Your task to perform on an android device: change notifications settings Image 0: 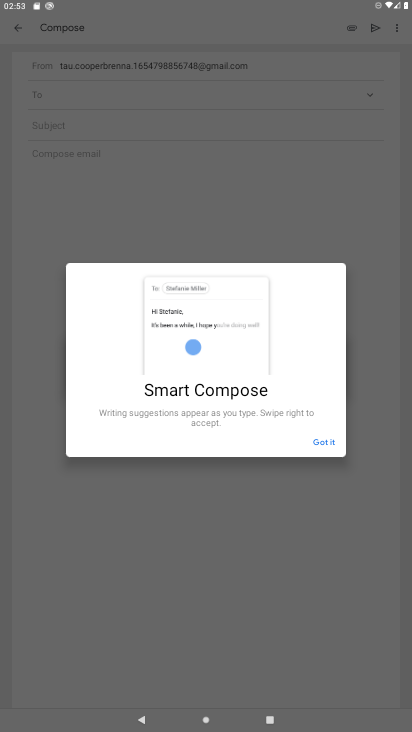
Step 0: press home button
Your task to perform on an android device: change notifications settings Image 1: 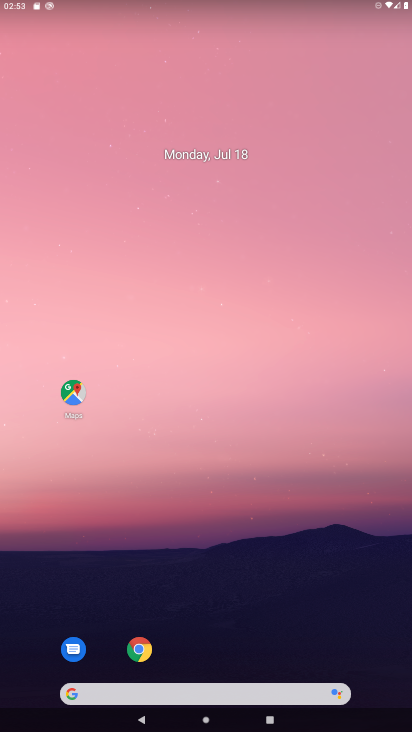
Step 1: drag from (175, 662) to (193, 55)
Your task to perform on an android device: change notifications settings Image 2: 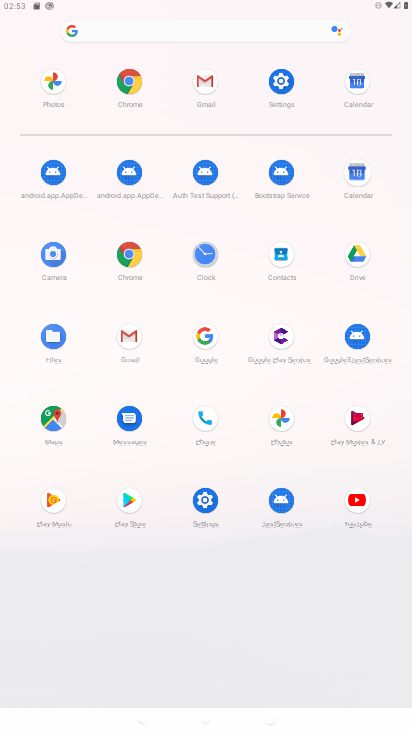
Step 2: click (280, 86)
Your task to perform on an android device: change notifications settings Image 3: 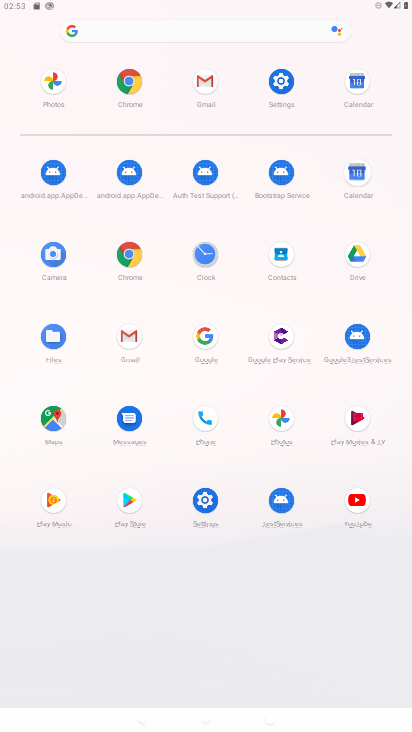
Step 3: click (280, 86)
Your task to perform on an android device: change notifications settings Image 4: 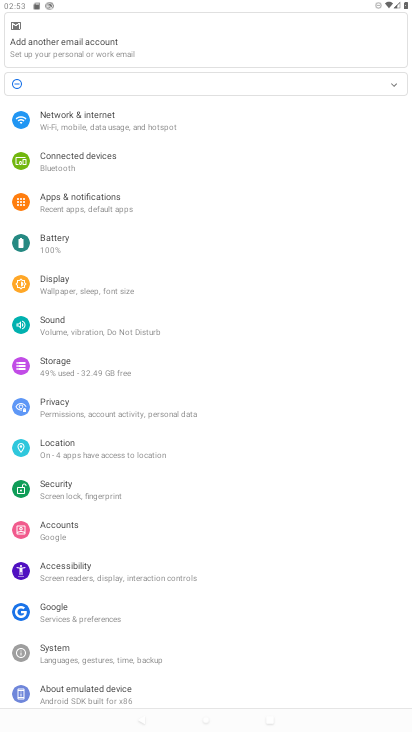
Step 4: click (106, 209)
Your task to perform on an android device: change notifications settings Image 5: 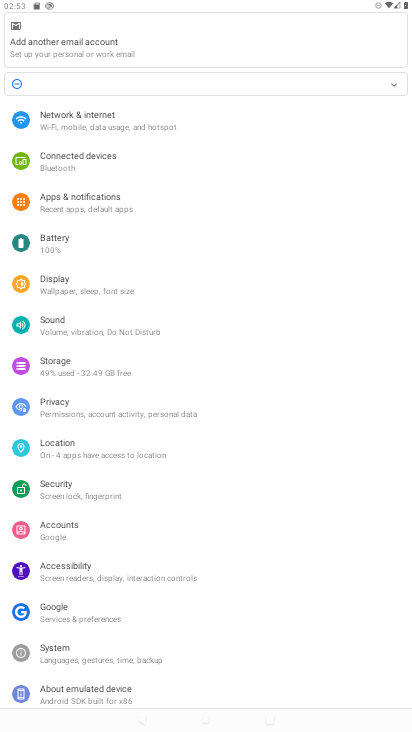
Step 5: click (106, 209)
Your task to perform on an android device: change notifications settings Image 6: 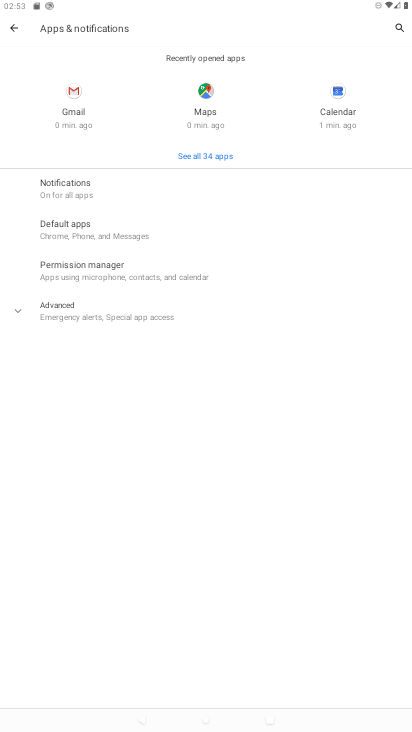
Step 6: click (221, 193)
Your task to perform on an android device: change notifications settings Image 7: 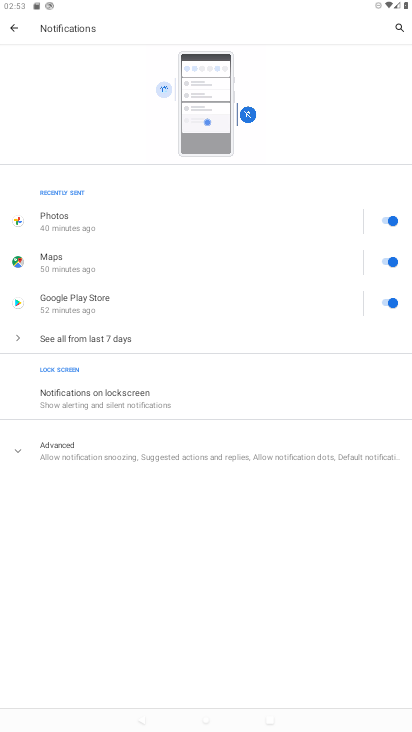
Step 7: click (388, 223)
Your task to perform on an android device: change notifications settings Image 8: 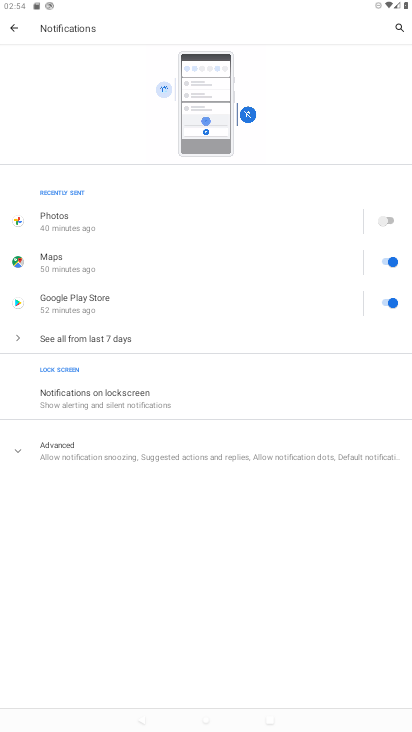
Step 8: task complete